Your task to perform on an android device: Show me popular videos on Youtube Image 0: 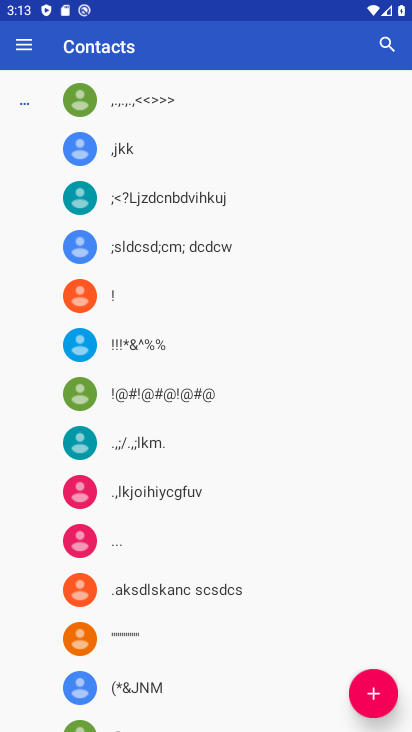
Step 0: press home button
Your task to perform on an android device: Show me popular videos on Youtube Image 1: 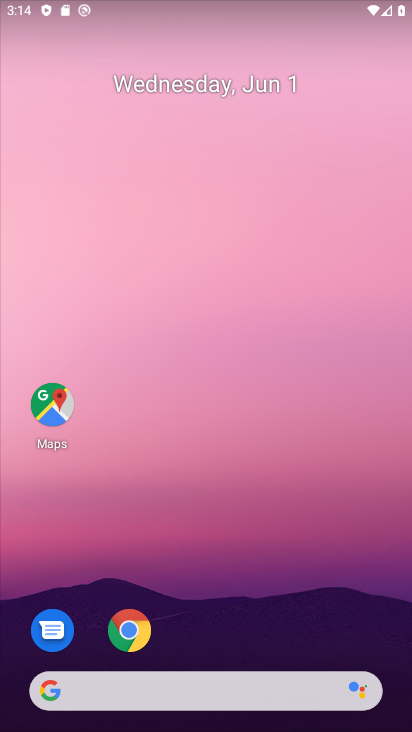
Step 1: drag from (260, 646) to (244, 251)
Your task to perform on an android device: Show me popular videos on Youtube Image 2: 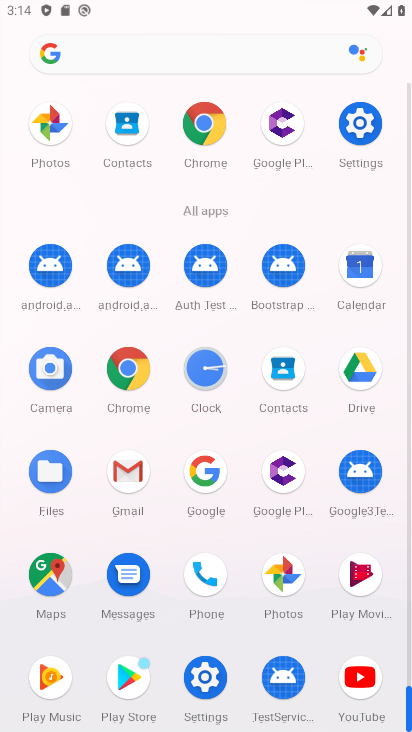
Step 2: click (369, 674)
Your task to perform on an android device: Show me popular videos on Youtube Image 3: 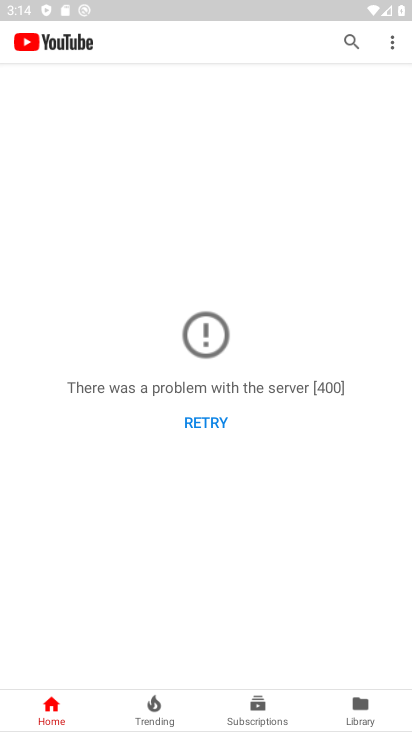
Step 3: click (203, 427)
Your task to perform on an android device: Show me popular videos on Youtube Image 4: 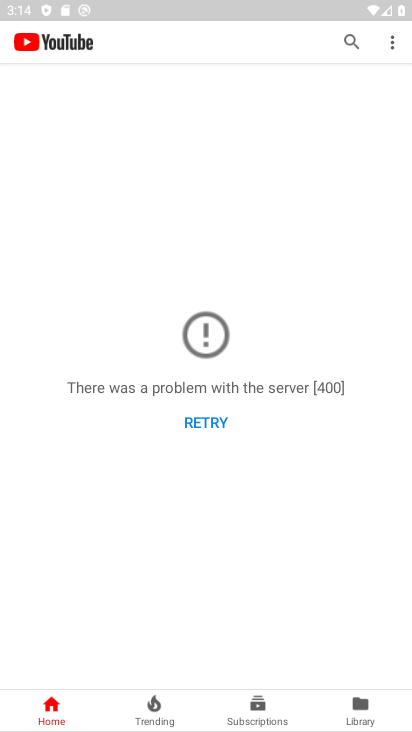
Step 4: click (203, 427)
Your task to perform on an android device: Show me popular videos on Youtube Image 5: 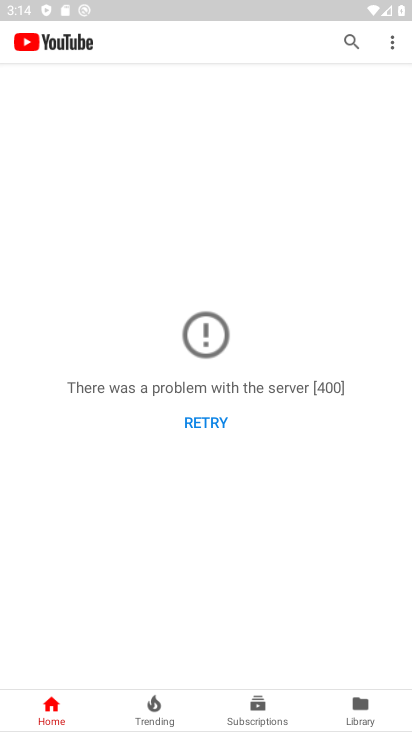
Step 5: click (203, 421)
Your task to perform on an android device: Show me popular videos on Youtube Image 6: 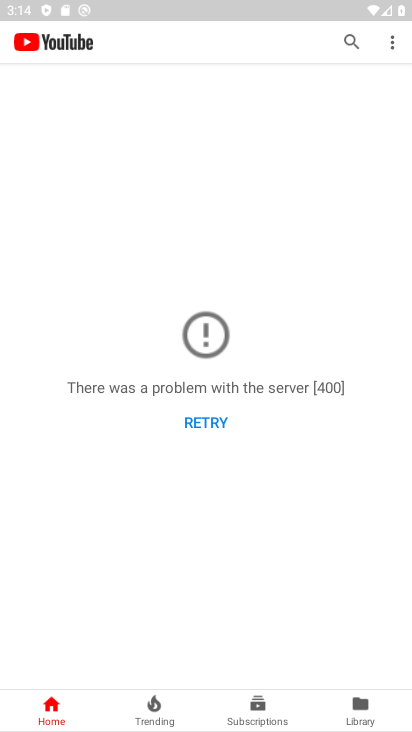
Step 6: click (203, 421)
Your task to perform on an android device: Show me popular videos on Youtube Image 7: 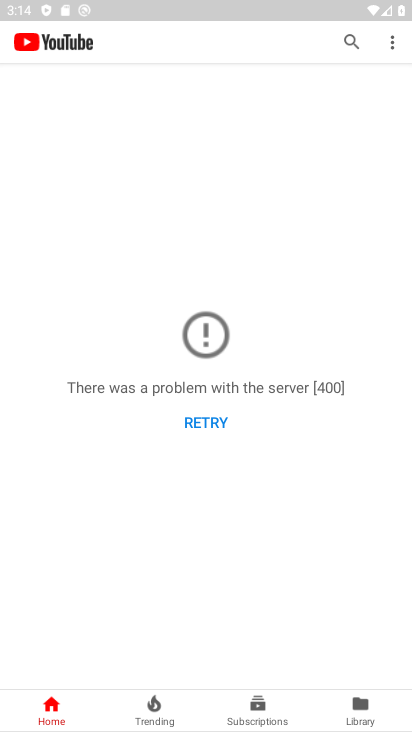
Step 7: task complete